Your task to perform on an android device: turn off smart reply in the gmail app Image 0: 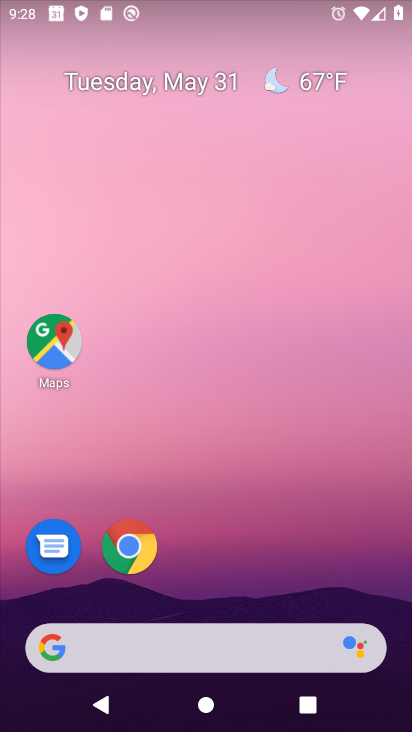
Step 0: drag from (211, 602) to (252, 96)
Your task to perform on an android device: turn off smart reply in the gmail app Image 1: 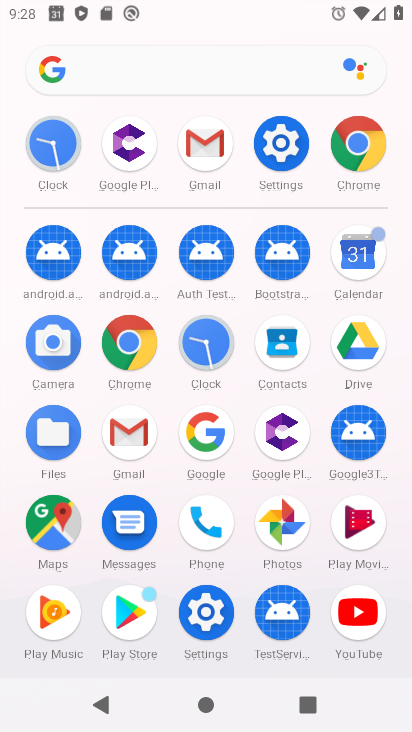
Step 1: click (124, 432)
Your task to perform on an android device: turn off smart reply in the gmail app Image 2: 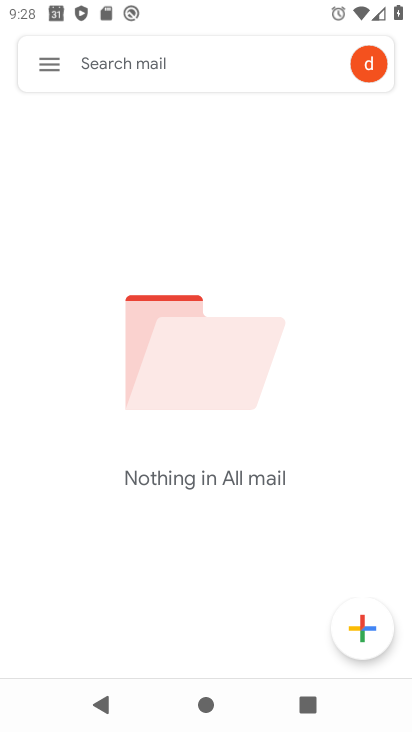
Step 2: click (38, 76)
Your task to perform on an android device: turn off smart reply in the gmail app Image 3: 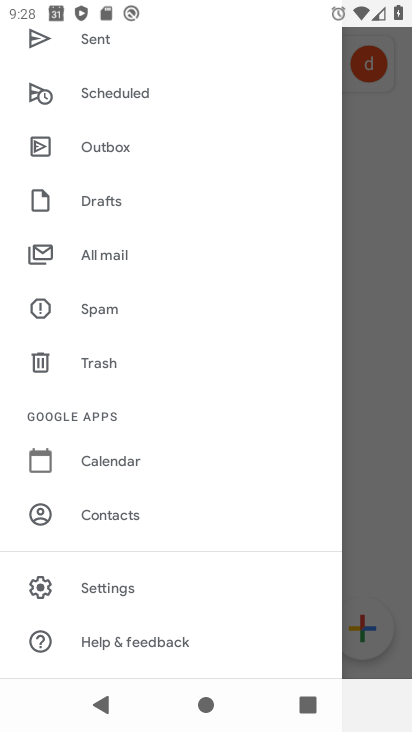
Step 3: click (118, 591)
Your task to perform on an android device: turn off smart reply in the gmail app Image 4: 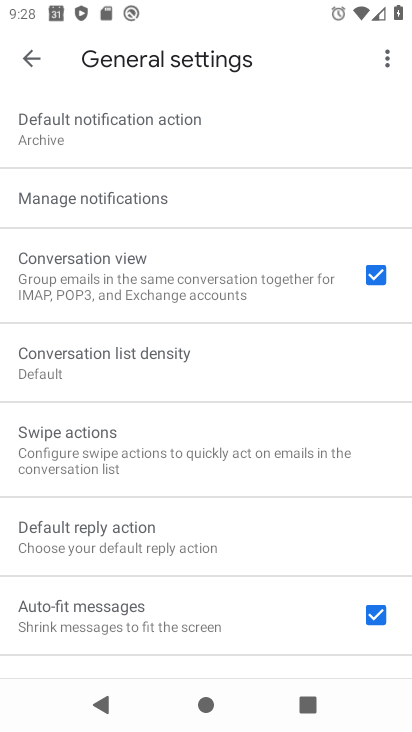
Step 4: click (29, 59)
Your task to perform on an android device: turn off smart reply in the gmail app Image 5: 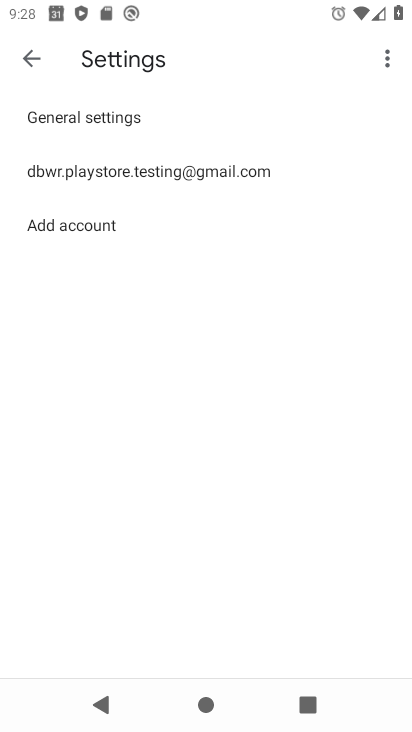
Step 5: click (133, 191)
Your task to perform on an android device: turn off smart reply in the gmail app Image 6: 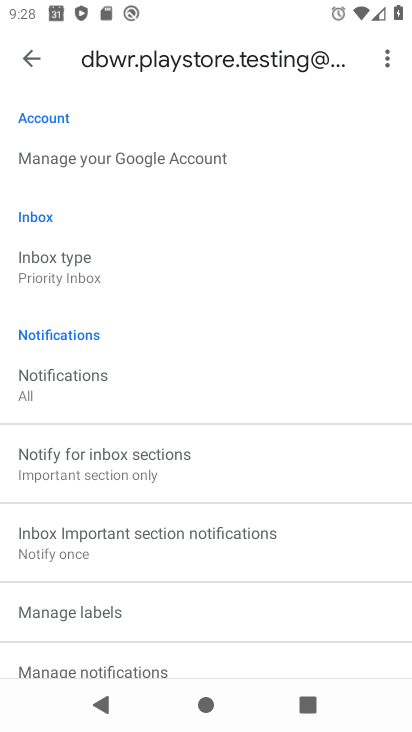
Step 6: click (115, 278)
Your task to perform on an android device: turn off smart reply in the gmail app Image 7: 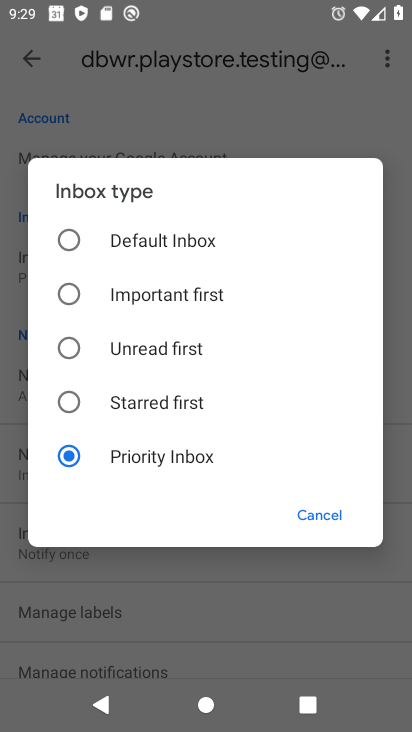
Step 7: click (170, 622)
Your task to perform on an android device: turn off smart reply in the gmail app Image 8: 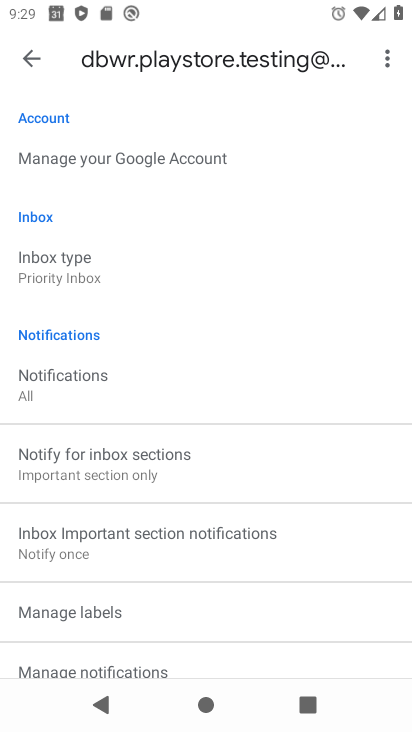
Step 8: drag from (165, 633) to (211, 362)
Your task to perform on an android device: turn off smart reply in the gmail app Image 9: 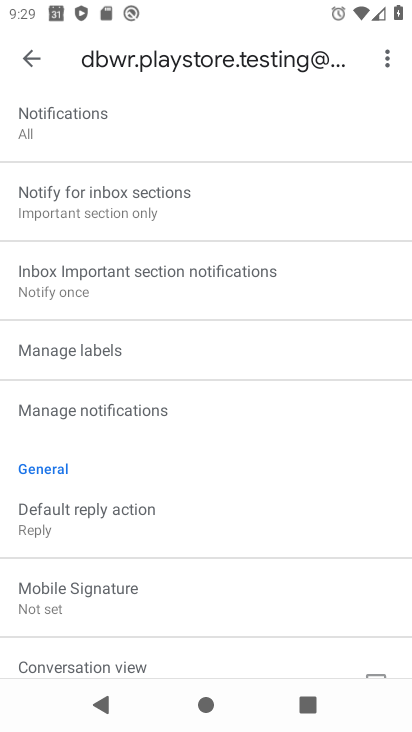
Step 9: drag from (142, 585) to (142, 293)
Your task to perform on an android device: turn off smart reply in the gmail app Image 10: 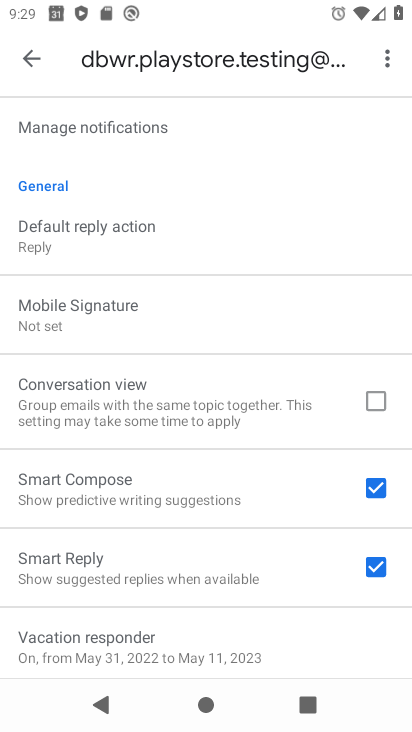
Step 10: click (371, 567)
Your task to perform on an android device: turn off smart reply in the gmail app Image 11: 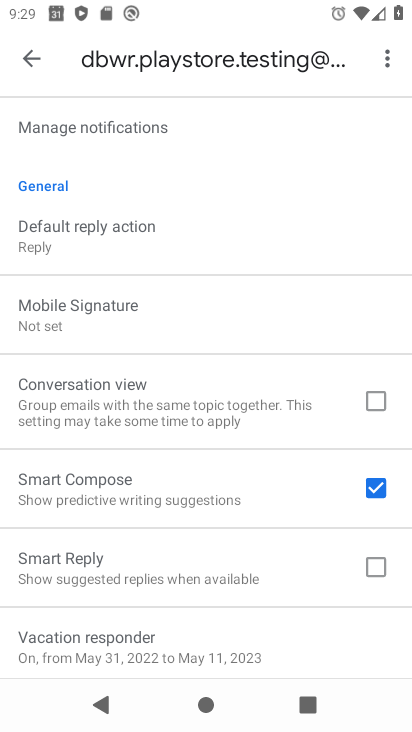
Step 11: task complete